Your task to perform on an android device: Open Amazon Image 0: 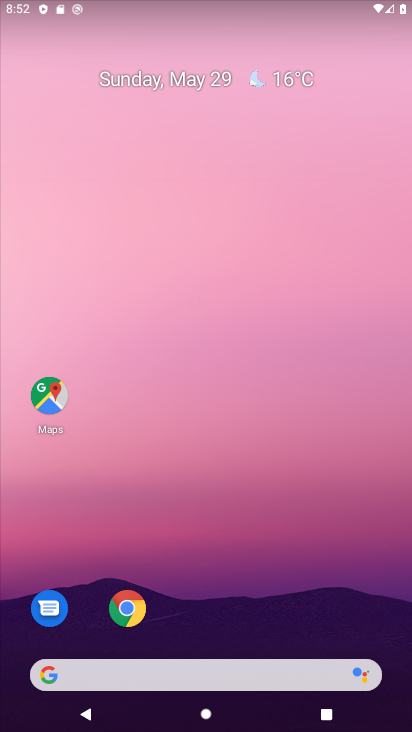
Step 0: click (122, 612)
Your task to perform on an android device: Open Amazon Image 1: 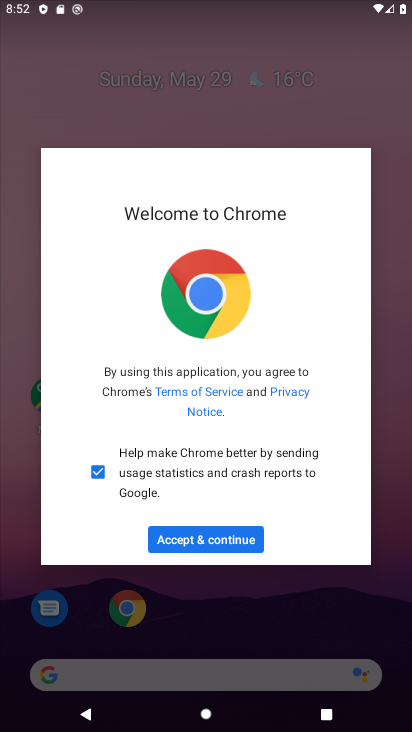
Step 1: click (186, 531)
Your task to perform on an android device: Open Amazon Image 2: 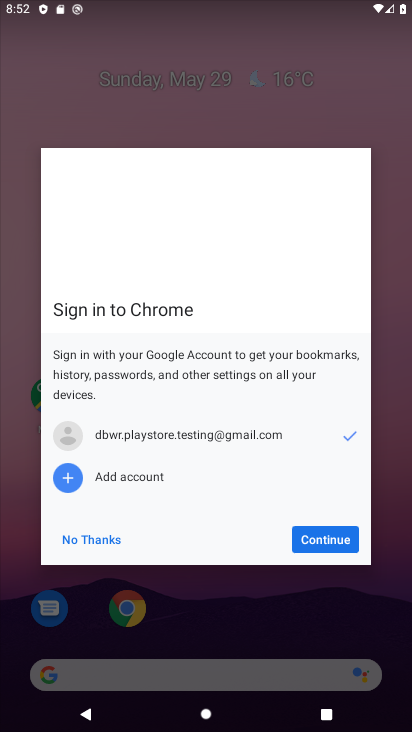
Step 2: click (328, 539)
Your task to perform on an android device: Open Amazon Image 3: 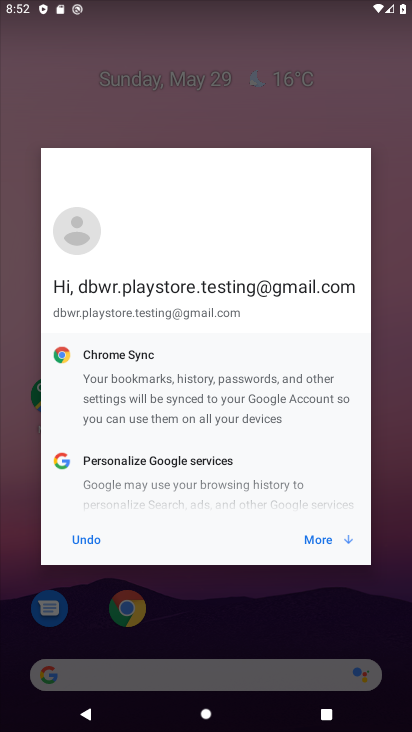
Step 3: click (328, 539)
Your task to perform on an android device: Open Amazon Image 4: 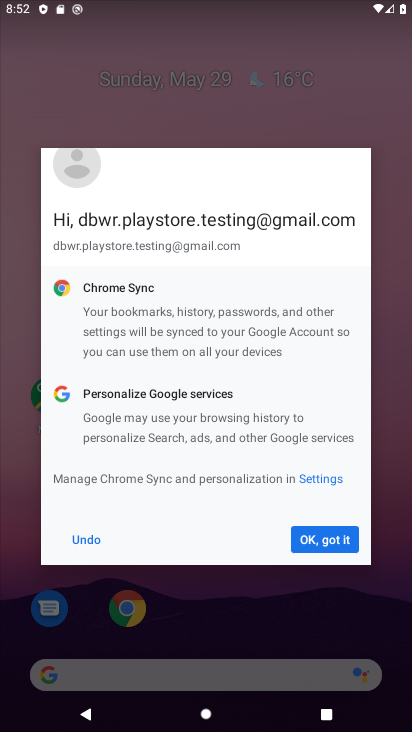
Step 4: click (328, 539)
Your task to perform on an android device: Open Amazon Image 5: 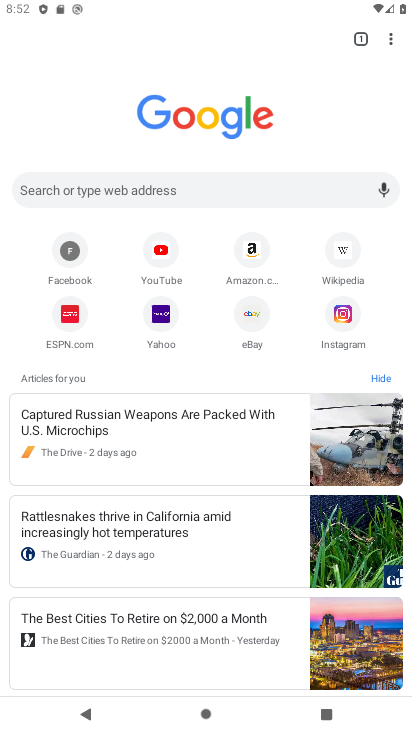
Step 5: click (242, 263)
Your task to perform on an android device: Open Amazon Image 6: 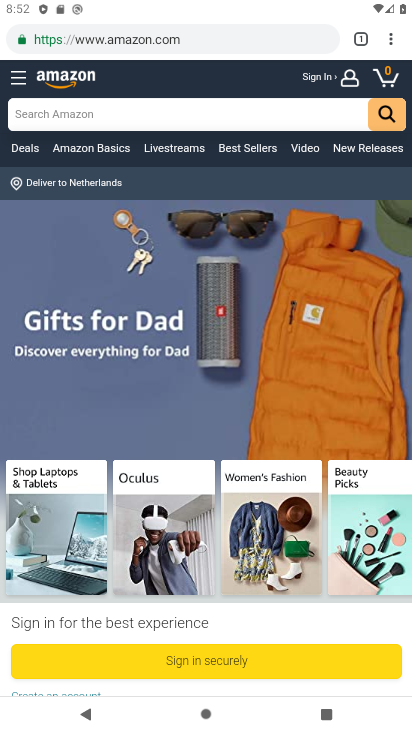
Step 6: task complete